Your task to perform on an android device: What's on my calendar today? Image 0: 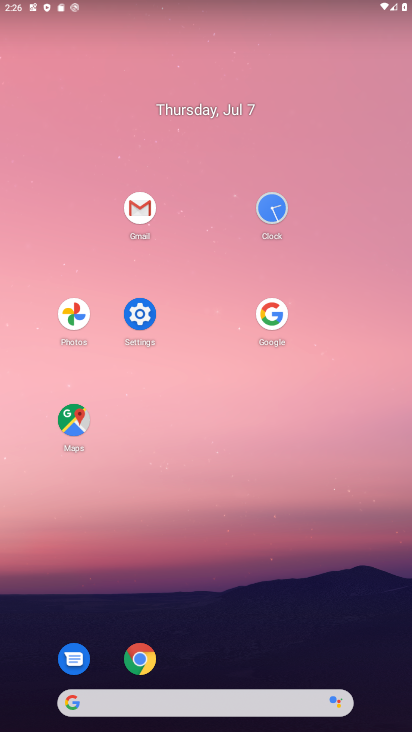
Step 0: drag from (274, 645) to (210, 99)
Your task to perform on an android device: What's on my calendar today? Image 1: 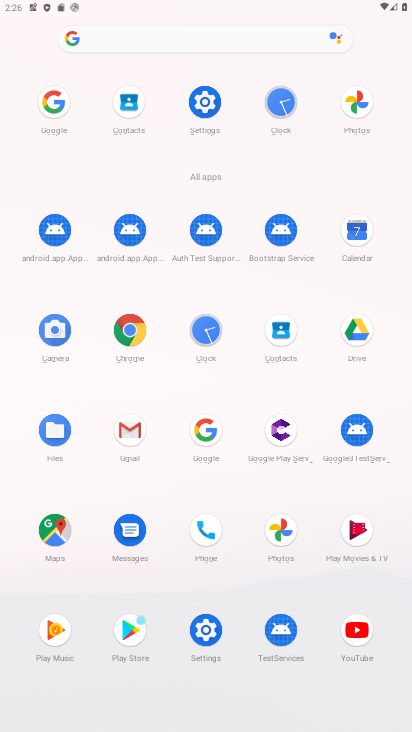
Step 1: click (364, 244)
Your task to perform on an android device: What's on my calendar today? Image 2: 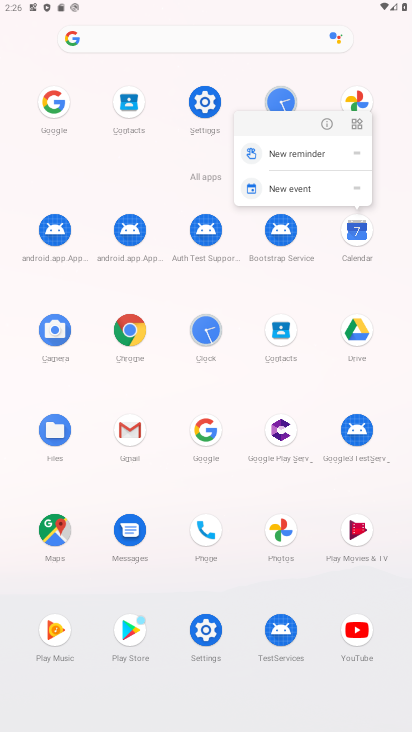
Step 2: click (357, 229)
Your task to perform on an android device: What's on my calendar today? Image 3: 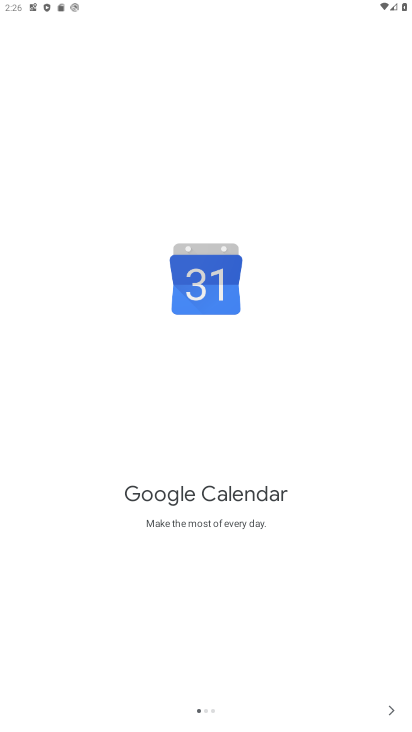
Step 3: click (384, 706)
Your task to perform on an android device: What's on my calendar today? Image 4: 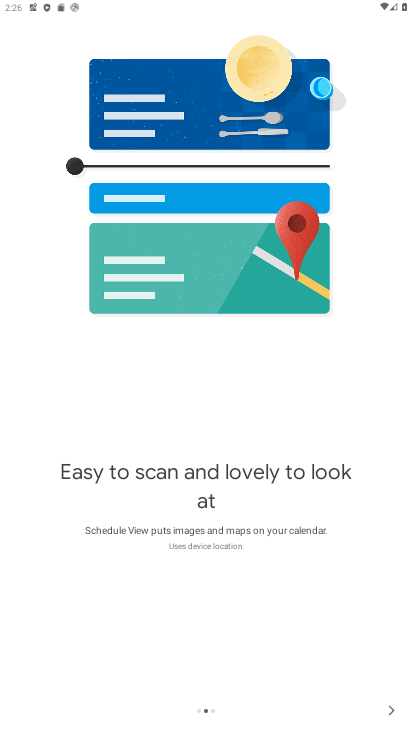
Step 4: click (384, 706)
Your task to perform on an android device: What's on my calendar today? Image 5: 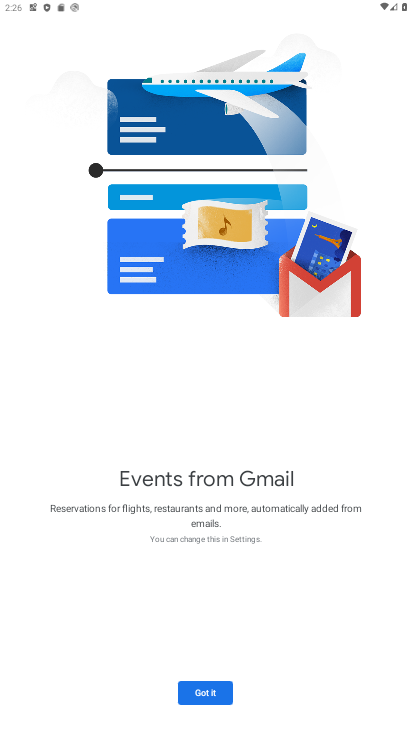
Step 5: click (218, 691)
Your task to perform on an android device: What's on my calendar today? Image 6: 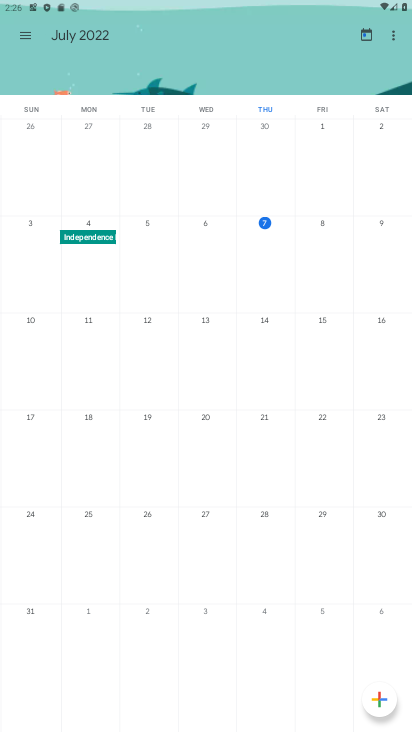
Step 6: click (256, 231)
Your task to perform on an android device: What's on my calendar today? Image 7: 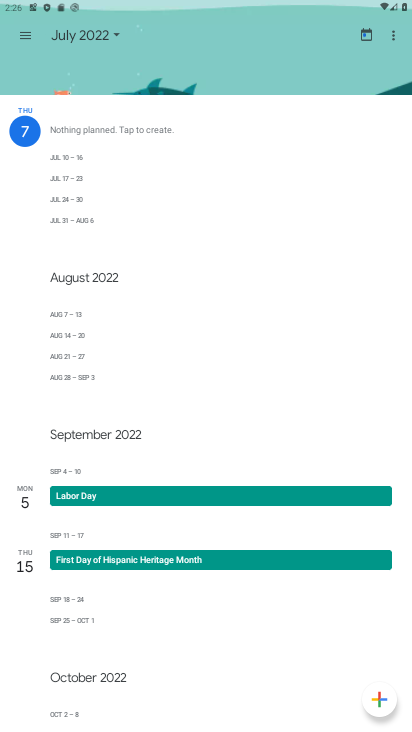
Step 7: task complete